Your task to perform on an android device: delete location history Image 0: 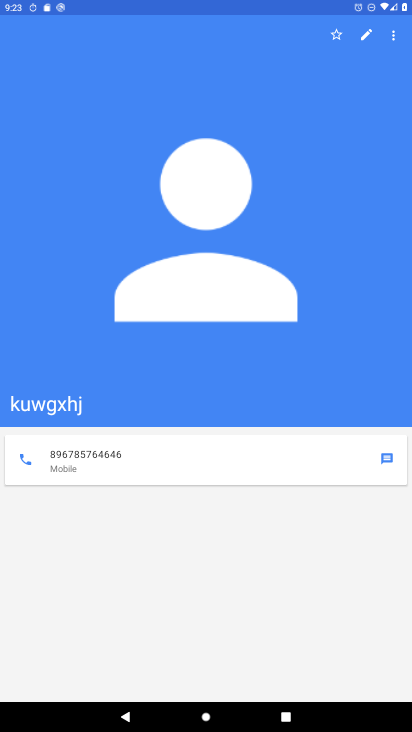
Step 0: press home button
Your task to perform on an android device: delete location history Image 1: 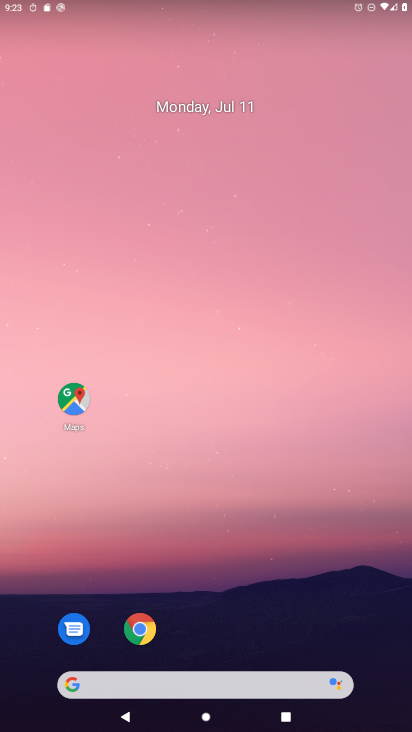
Step 1: drag from (207, 527) to (213, 86)
Your task to perform on an android device: delete location history Image 2: 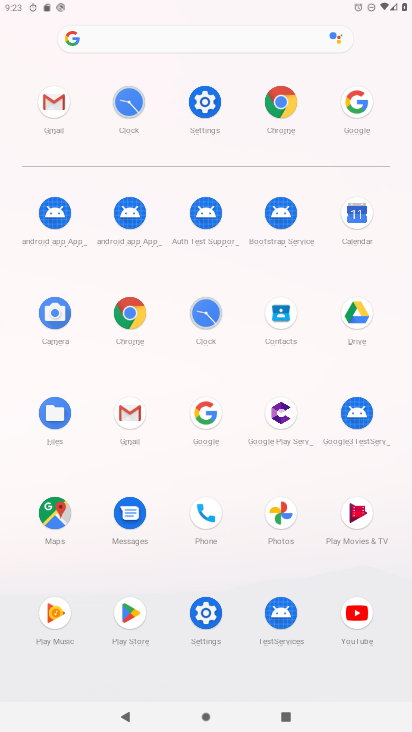
Step 2: click (209, 104)
Your task to perform on an android device: delete location history Image 3: 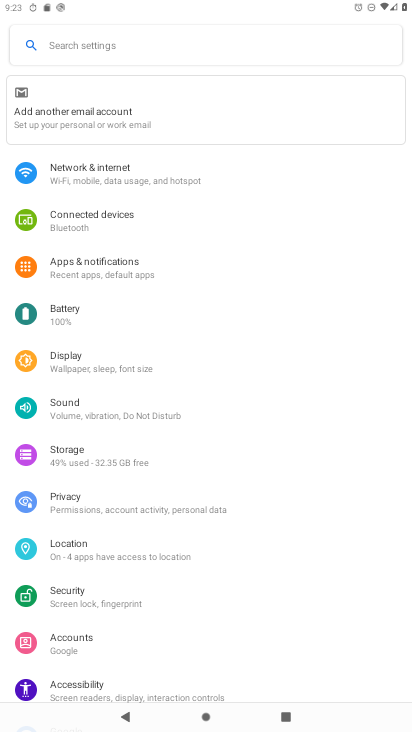
Step 3: click (88, 547)
Your task to perform on an android device: delete location history Image 4: 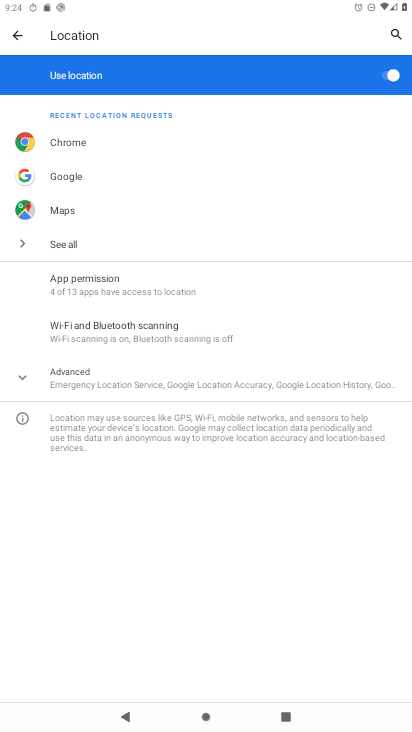
Step 4: click (89, 375)
Your task to perform on an android device: delete location history Image 5: 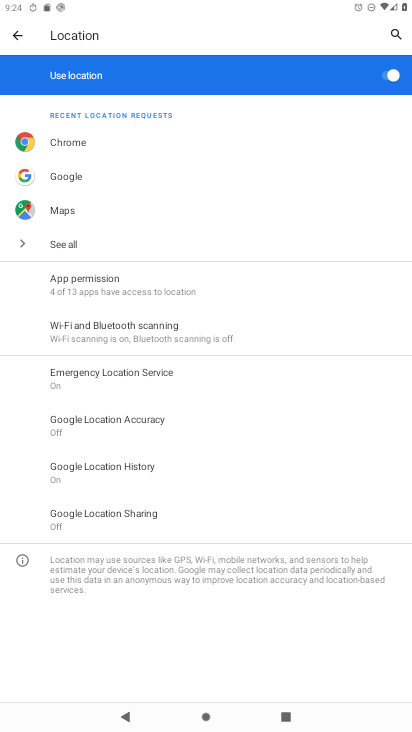
Step 5: click (137, 461)
Your task to perform on an android device: delete location history Image 6: 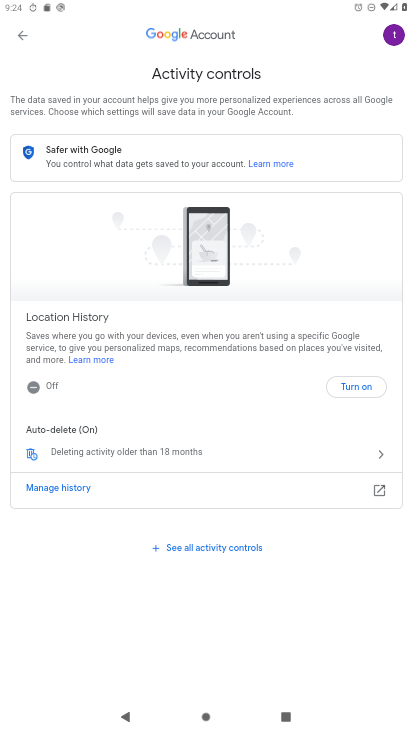
Step 6: click (31, 454)
Your task to perform on an android device: delete location history Image 7: 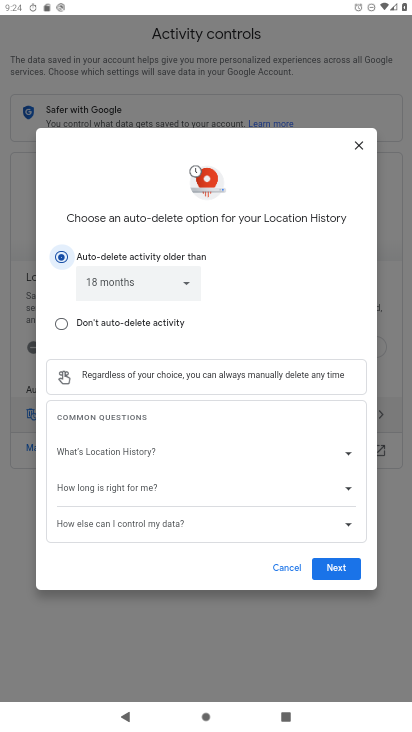
Step 7: click (339, 569)
Your task to perform on an android device: delete location history Image 8: 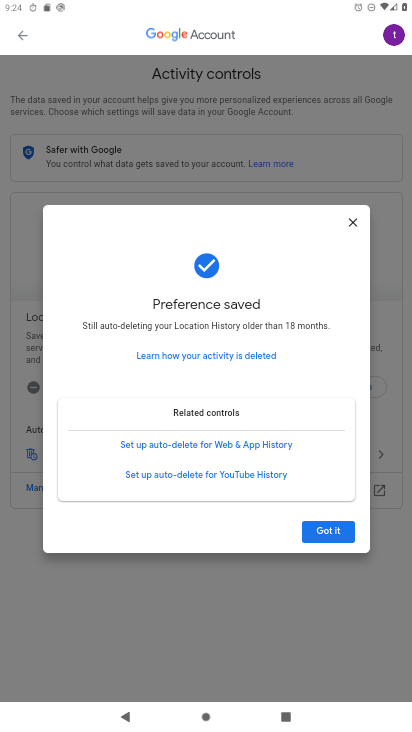
Step 8: click (322, 537)
Your task to perform on an android device: delete location history Image 9: 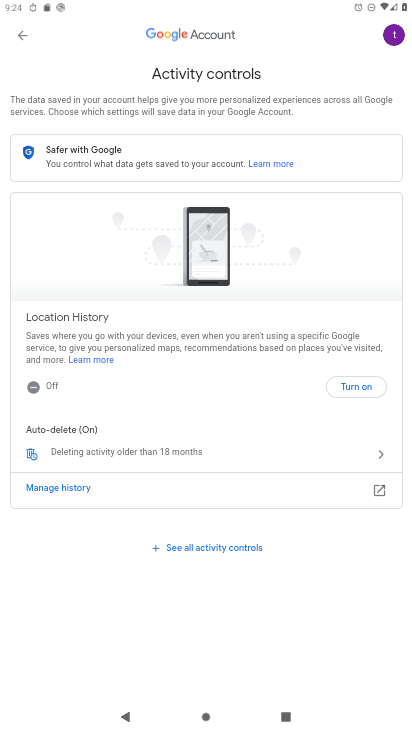
Step 9: task complete